Your task to perform on an android device: turn off location history Image 0: 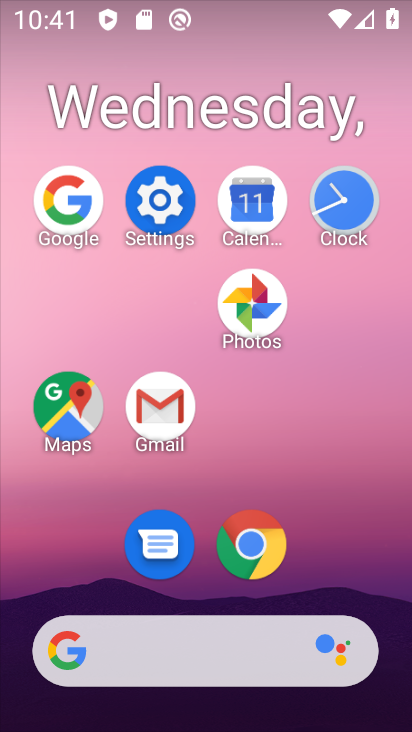
Step 0: click (152, 201)
Your task to perform on an android device: turn off location history Image 1: 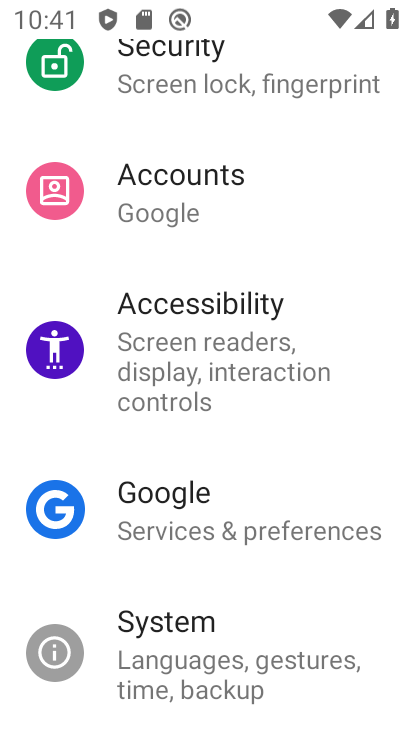
Step 1: drag from (300, 169) to (313, 651)
Your task to perform on an android device: turn off location history Image 2: 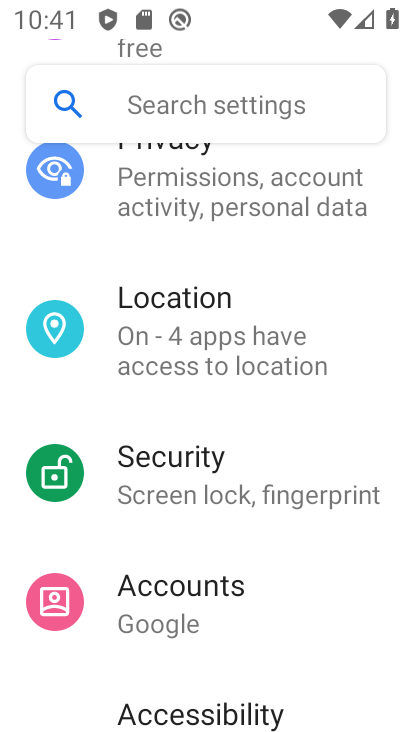
Step 2: click (216, 313)
Your task to perform on an android device: turn off location history Image 3: 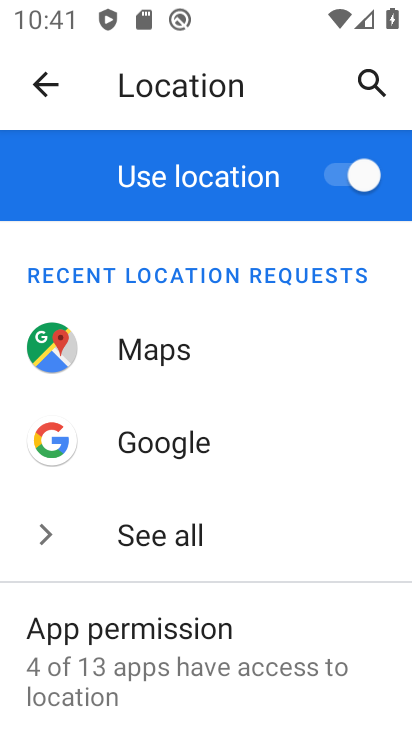
Step 3: drag from (298, 562) to (258, 118)
Your task to perform on an android device: turn off location history Image 4: 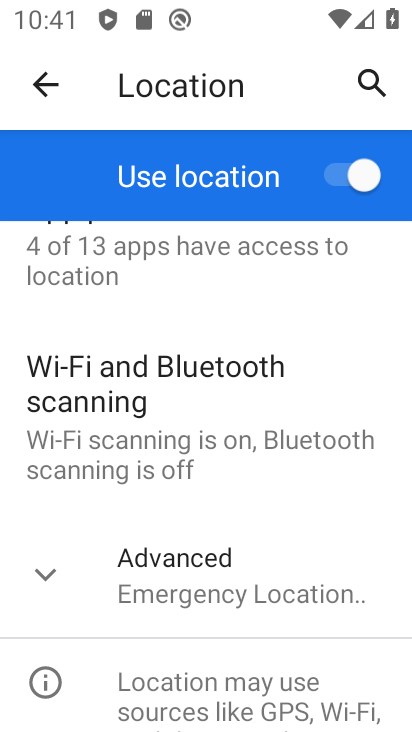
Step 4: click (212, 606)
Your task to perform on an android device: turn off location history Image 5: 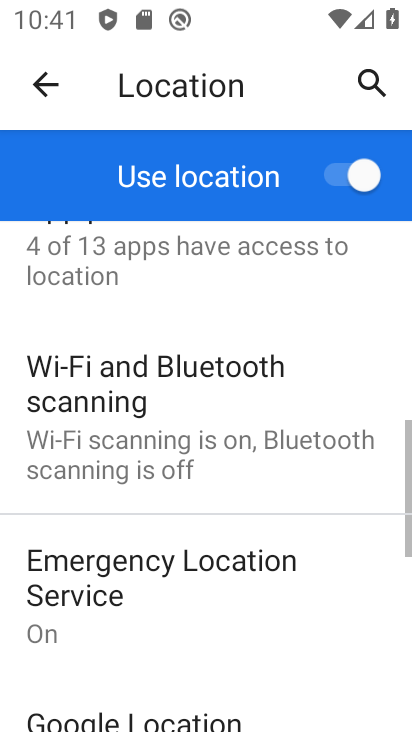
Step 5: drag from (212, 598) to (238, 215)
Your task to perform on an android device: turn off location history Image 6: 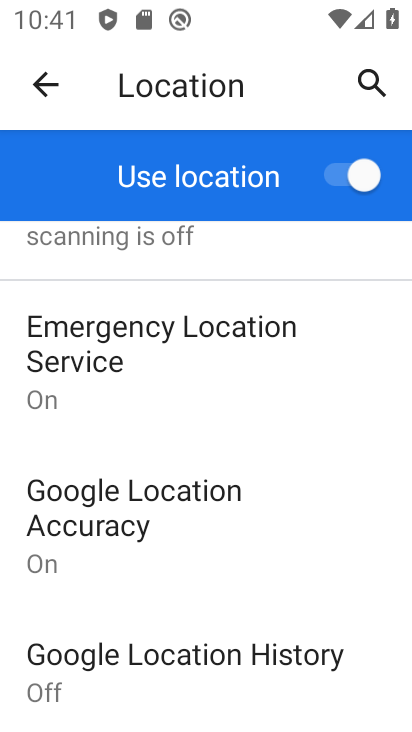
Step 6: click (268, 680)
Your task to perform on an android device: turn off location history Image 7: 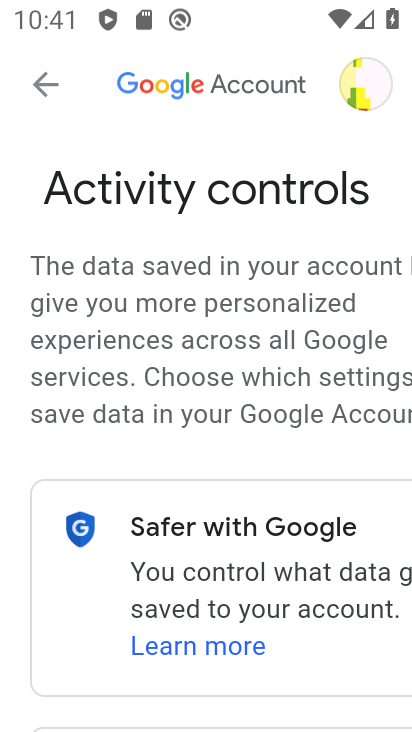
Step 7: drag from (278, 659) to (245, 169)
Your task to perform on an android device: turn off location history Image 8: 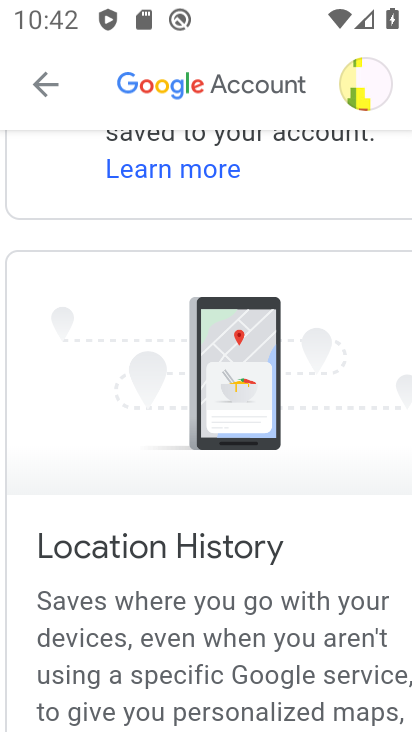
Step 8: drag from (303, 668) to (332, 254)
Your task to perform on an android device: turn off location history Image 9: 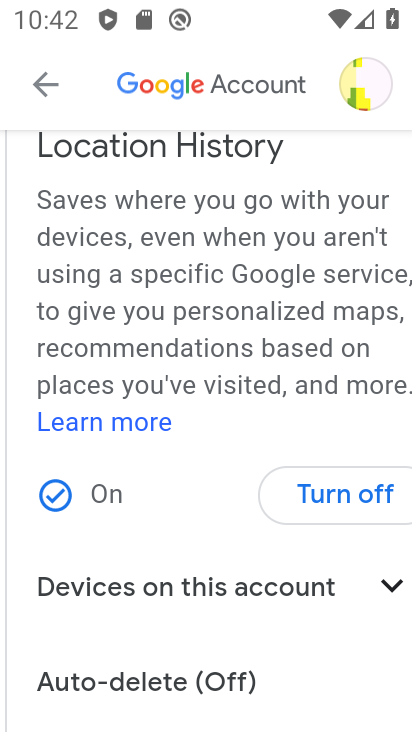
Step 9: drag from (298, 655) to (298, 358)
Your task to perform on an android device: turn off location history Image 10: 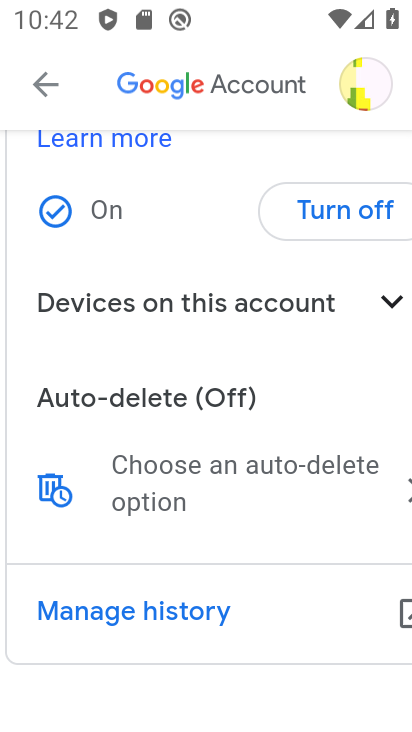
Step 10: click (390, 207)
Your task to perform on an android device: turn off location history Image 11: 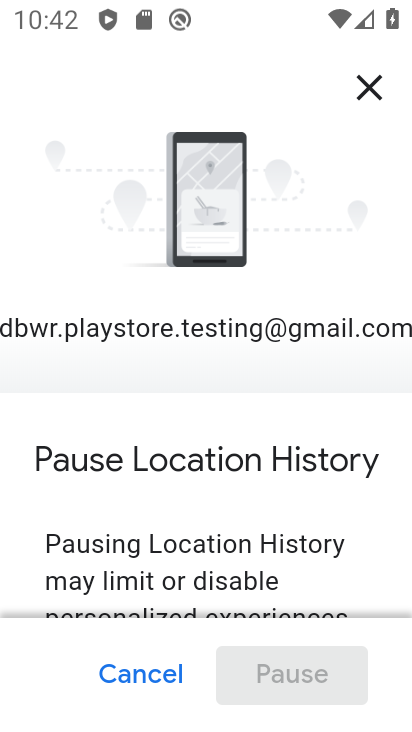
Step 11: drag from (261, 573) to (284, 181)
Your task to perform on an android device: turn off location history Image 12: 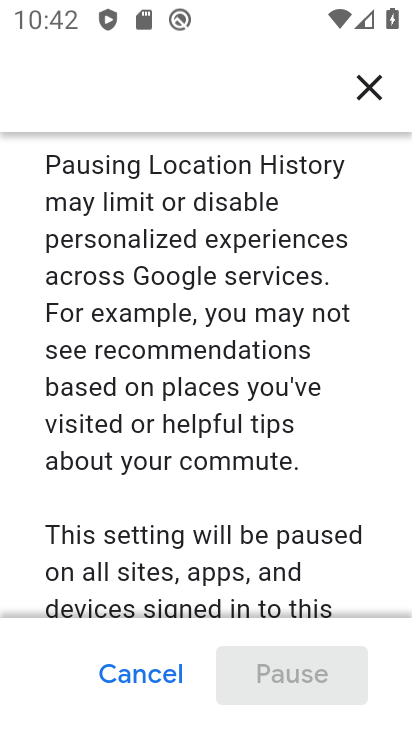
Step 12: drag from (266, 557) to (272, 172)
Your task to perform on an android device: turn off location history Image 13: 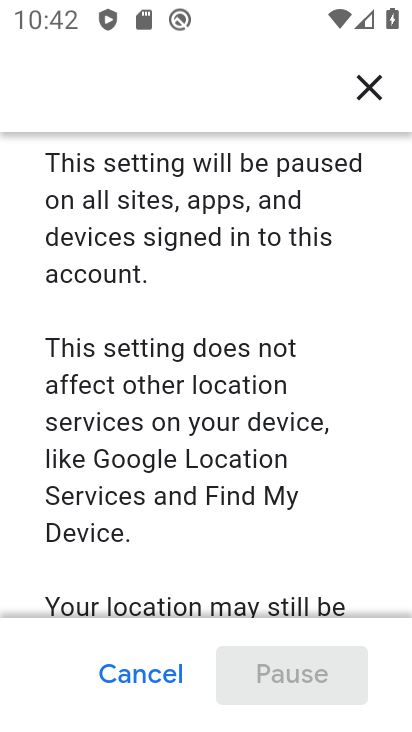
Step 13: drag from (241, 551) to (277, 162)
Your task to perform on an android device: turn off location history Image 14: 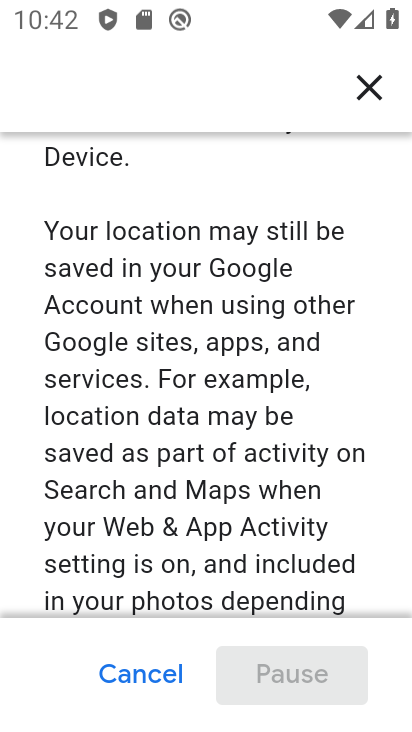
Step 14: drag from (285, 601) to (282, 211)
Your task to perform on an android device: turn off location history Image 15: 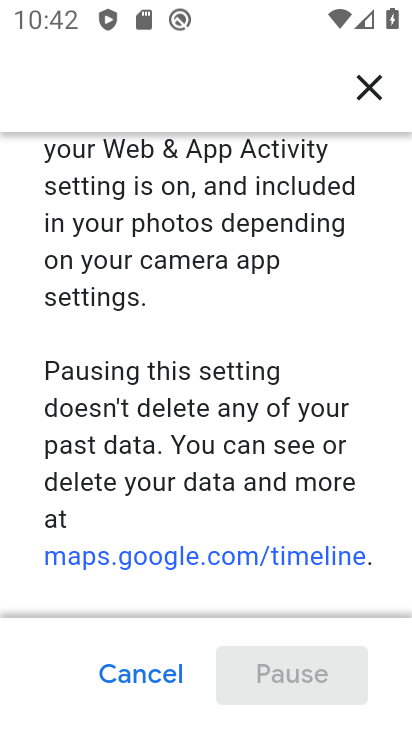
Step 15: drag from (269, 577) to (265, 191)
Your task to perform on an android device: turn off location history Image 16: 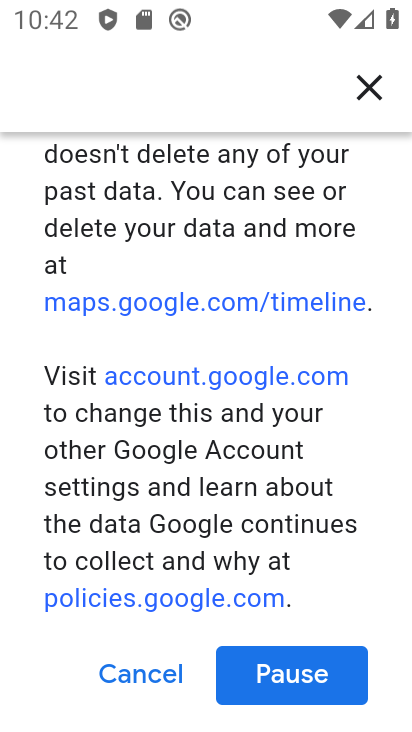
Step 16: click (287, 675)
Your task to perform on an android device: turn off location history Image 17: 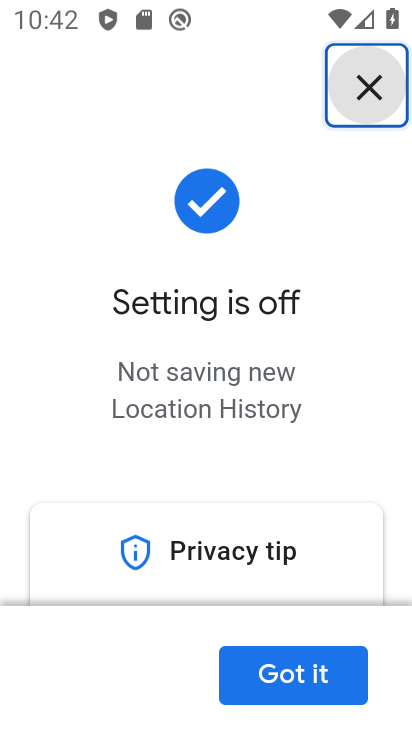
Step 17: click (288, 681)
Your task to perform on an android device: turn off location history Image 18: 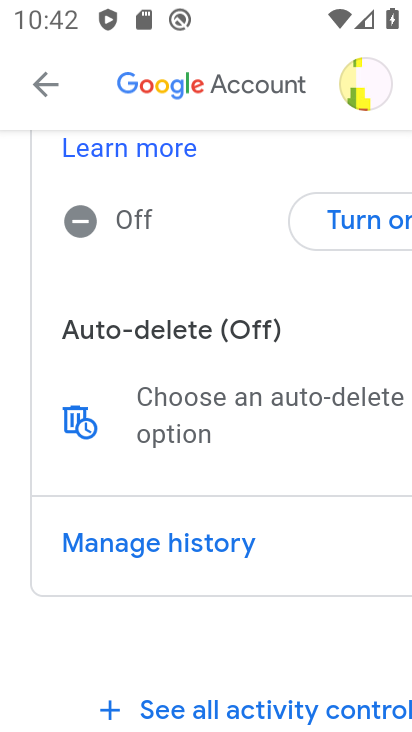
Step 18: task complete